Your task to perform on an android device: Empty the shopping cart on walmart.com. Search for "acer predator" on walmart.com, select the first entry, add it to the cart, then select checkout. Image 0: 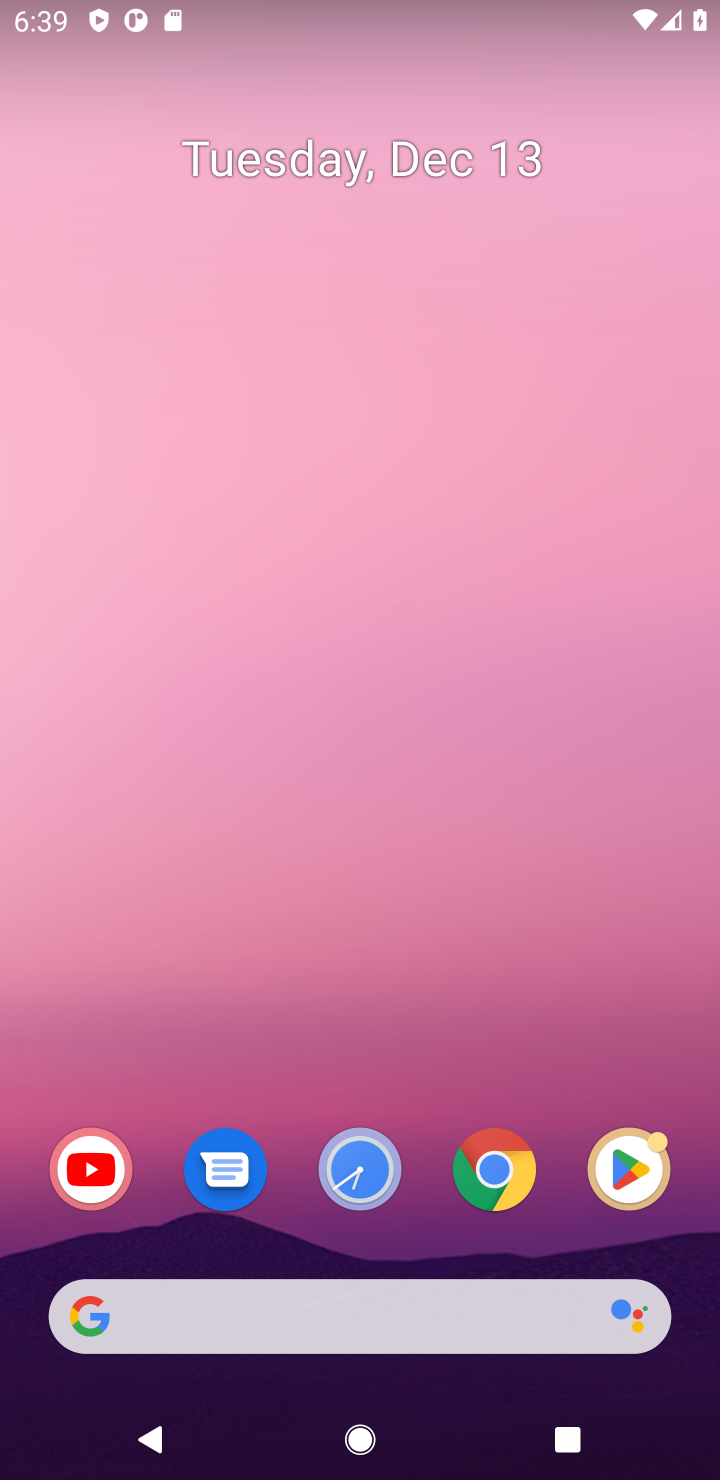
Step 0: click (381, 1292)
Your task to perform on an android device: Empty the shopping cart on walmart.com. Search for "acer predator" on walmart.com, select the first entry, add it to the cart, then select checkout. Image 1: 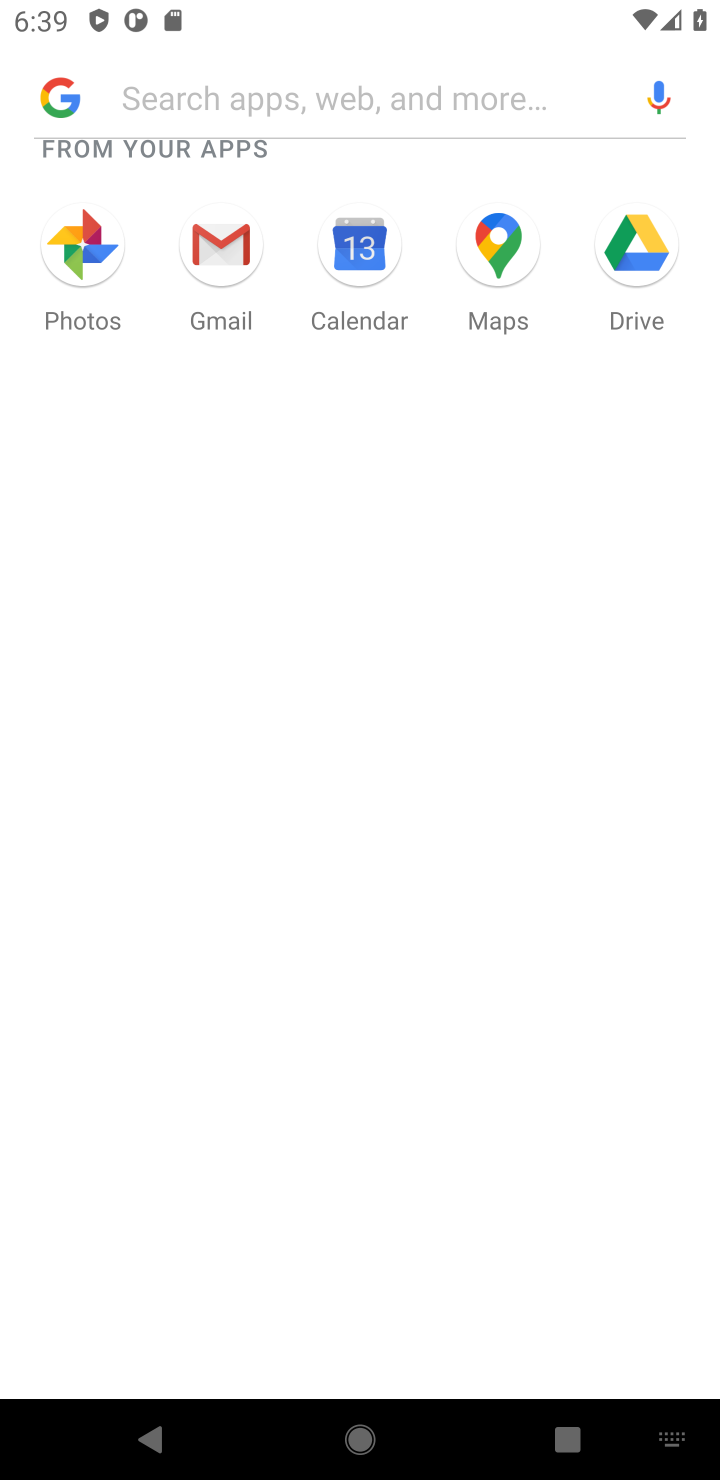
Step 1: type "walmart"
Your task to perform on an android device: Empty the shopping cart on walmart.com. Search for "acer predator" on walmart.com, select the first entry, add it to the cart, then select checkout. Image 2: 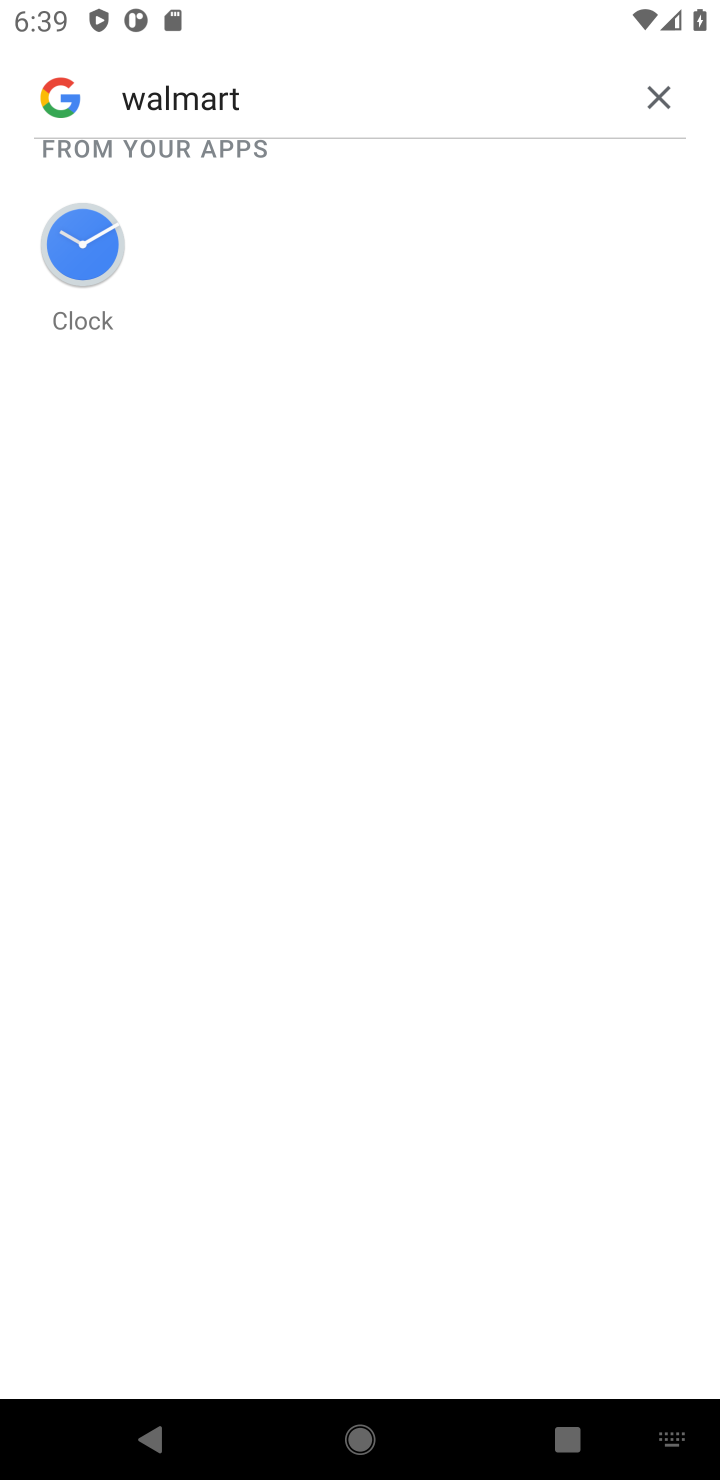
Step 2: press home button
Your task to perform on an android device: Empty the shopping cart on walmart.com. Search for "acer predator" on walmart.com, select the first entry, add it to the cart, then select checkout. Image 3: 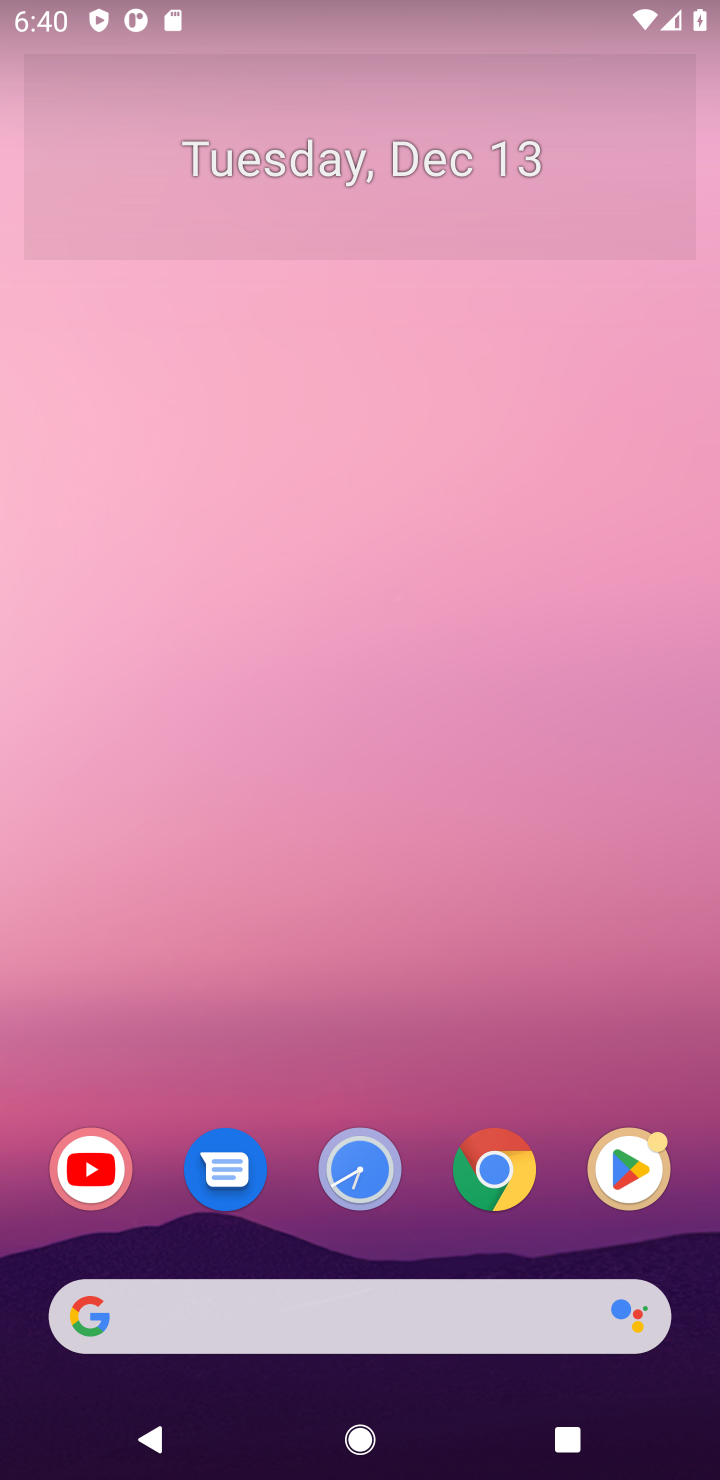
Step 3: click (481, 1206)
Your task to perform on an android device: Empty the shopping cart on walmart.com. Search for "acer predator" on walmart.com, select the first entry, add it to the cart, then select checkout. Image 4: 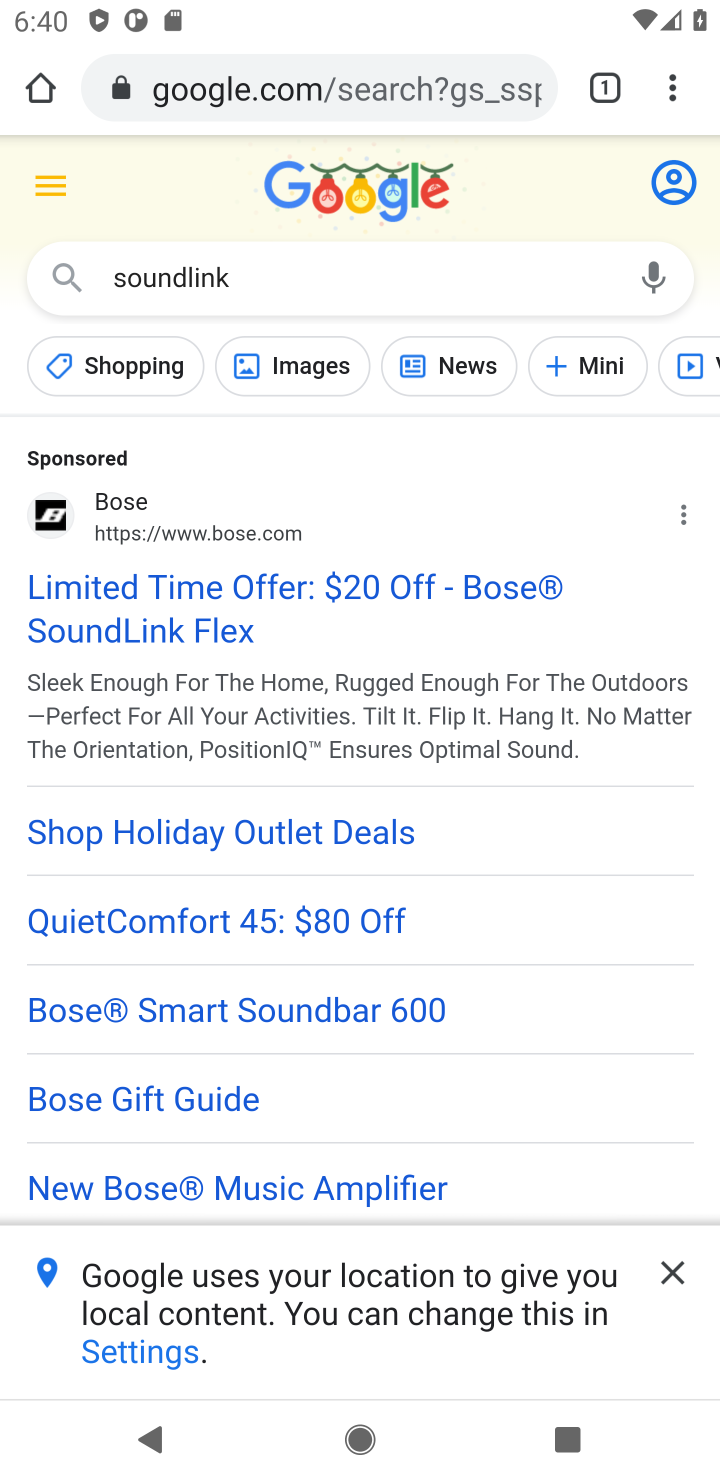
Step 4: click (302, 249)
Your task to perform on an android device: Empty the shopping cart on walmart.com. Search for "acer predator" on walmart.com, select the first entry, add it to the cart, then select checkout. Image 5: 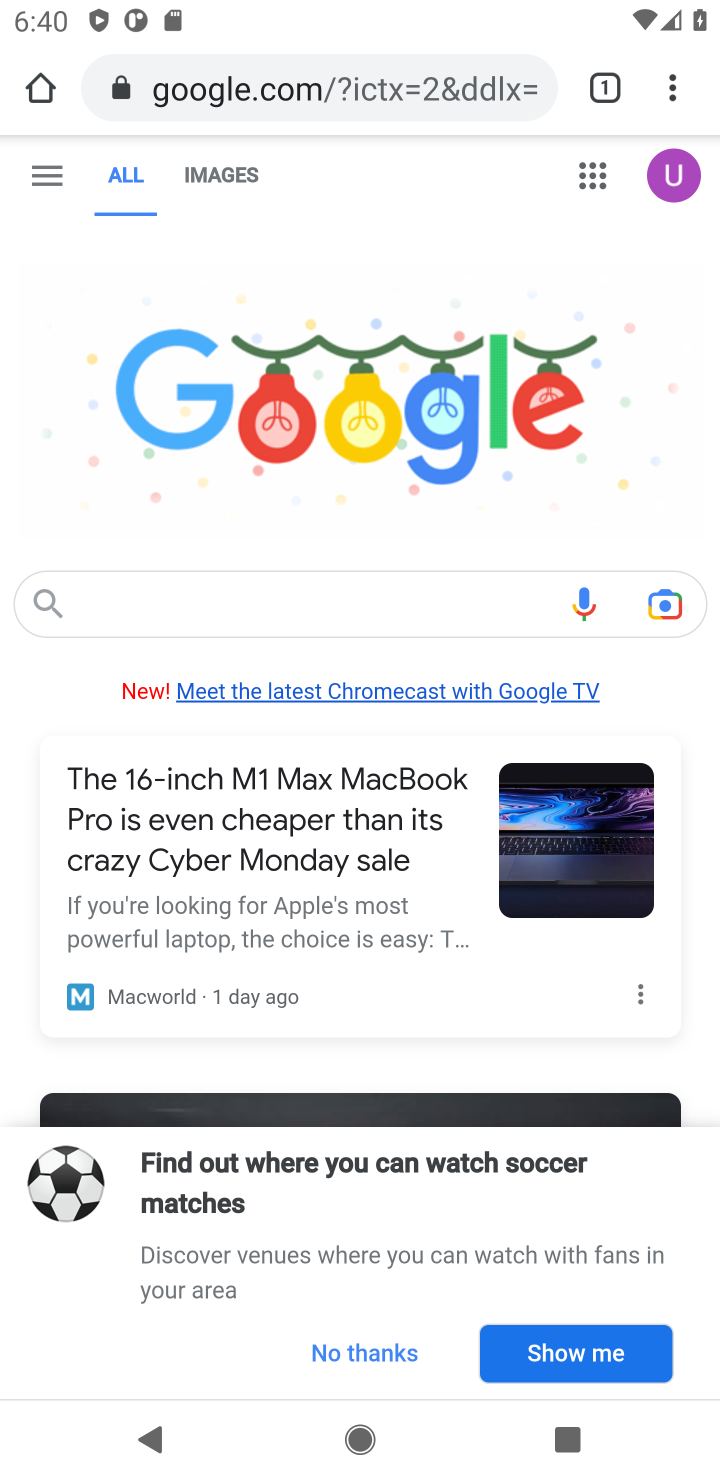
Step 5: click (237, 607)
Your task to perform on an android device: Empty the shopping cart on walmart.com. Search for "acer predator" on walmart.com, select the first entry, add it to the cart, then select checkout. Image 6: 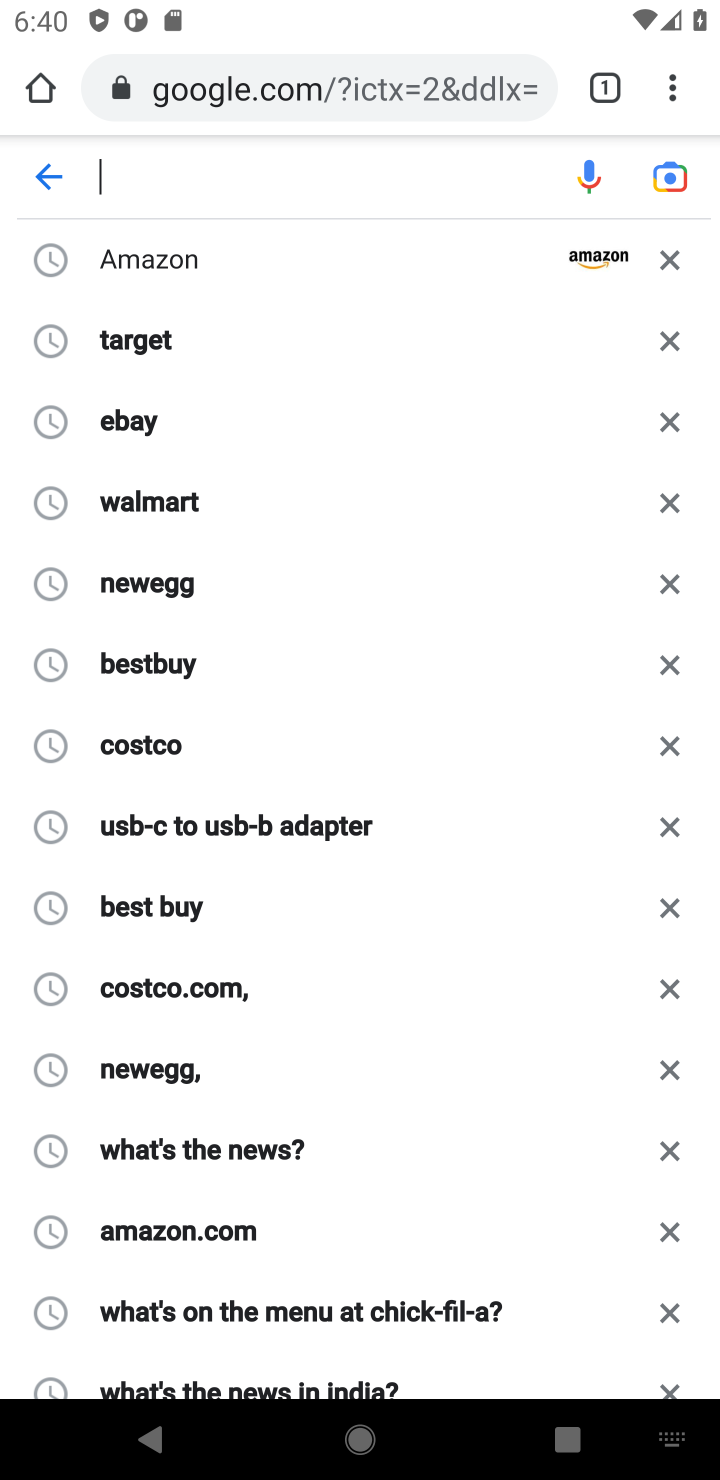
Step 6: click (157, 506)
Your task to perform on an android device: Empty the shopping cart on walmart.com. Search for "acer predator" on walmart.com, select the first entry, add it to the cart, then select checkout. Image 7: 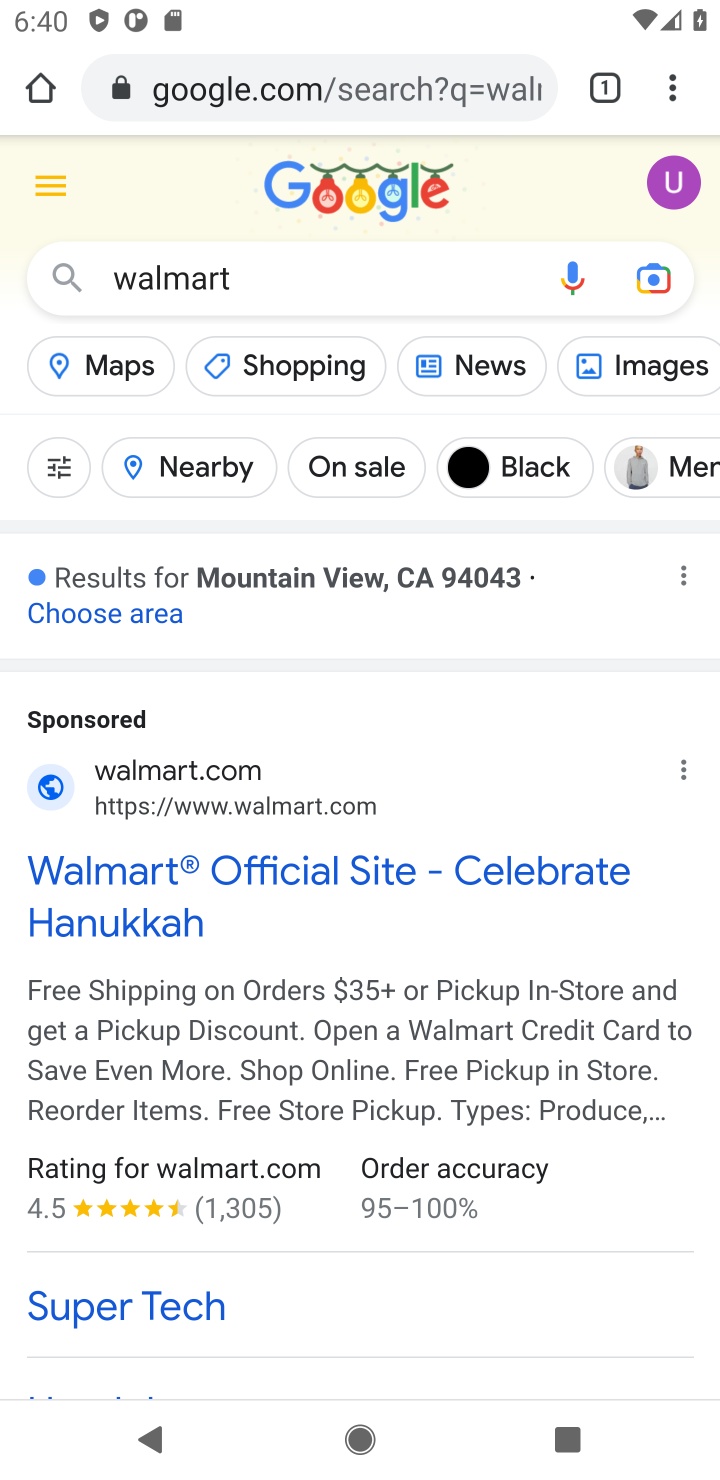
Step 7: click (167, 868)
Your task to perform on an android device: Empty the shopping cart on walmart.com. Search for "acer predator" on walmart.com, select the first entry, add it to the cart, then select checkout. Image 8: 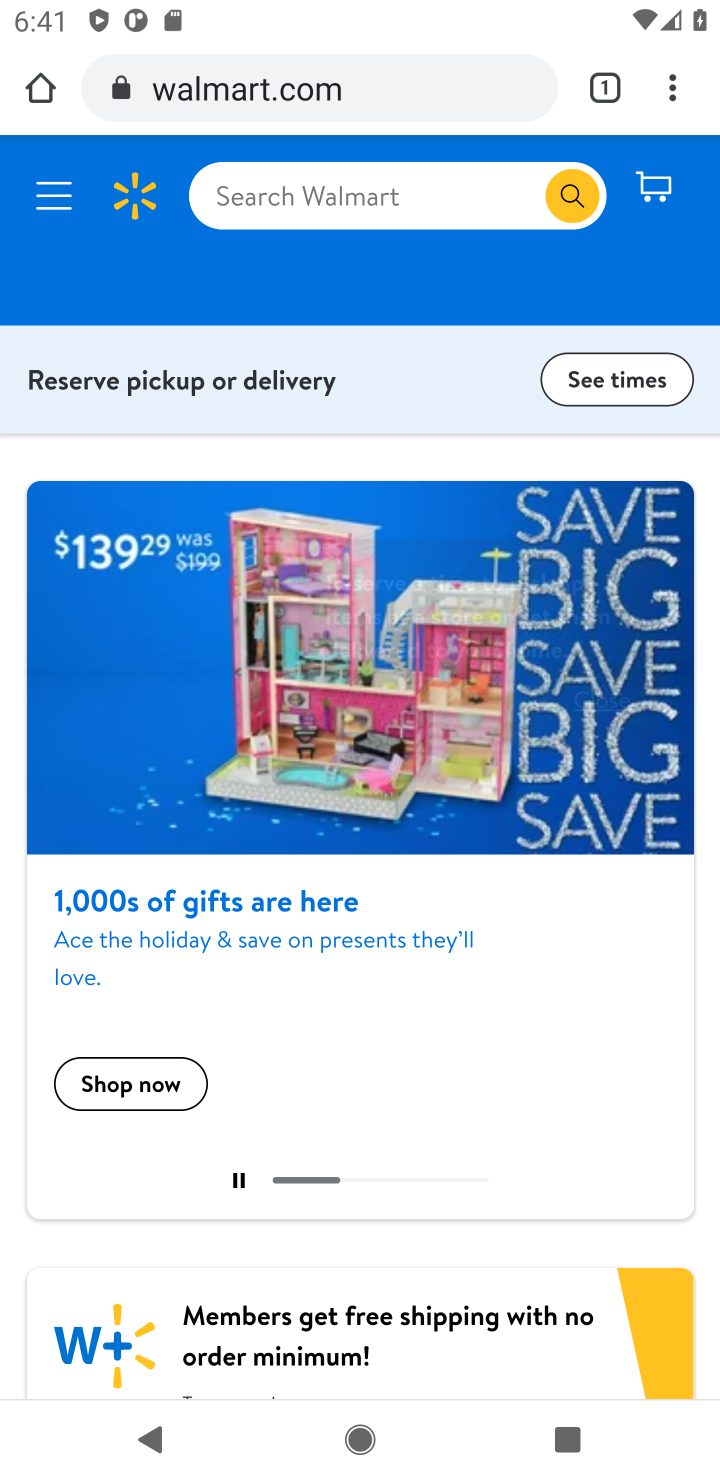
Step 8: click (334, 212)
Your task to perform on an android device: Empty the shopping cart on walmart.com. Search for "acer predator" on walmart.com, select the first entry, add it to the cart, then select checkout. Image 9: 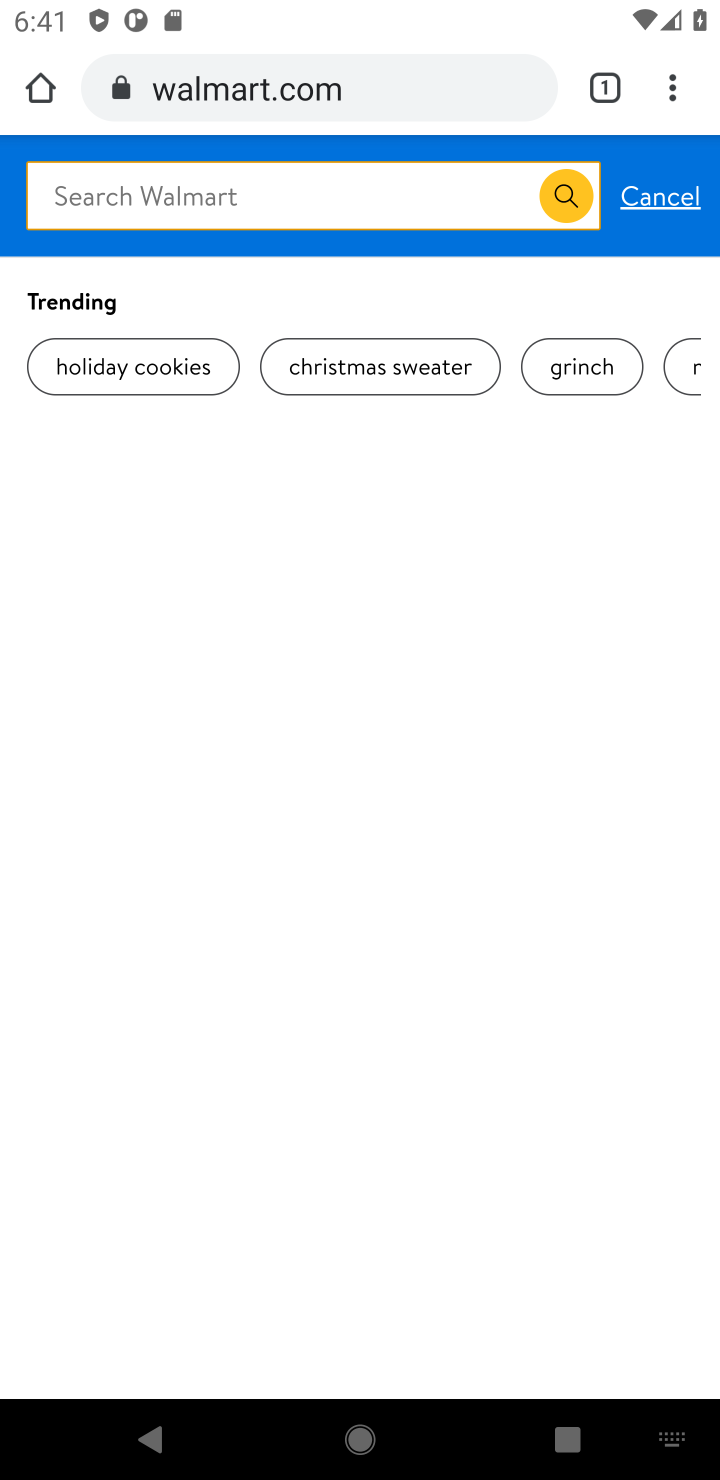
Step 9: type "acer predator"
Your task to perform on an android device: Empty the shopping cart on walmart.com. Search for "acer predator" on walmart.com, select the first entry, add it to the cart, then select checkout. Image 10: 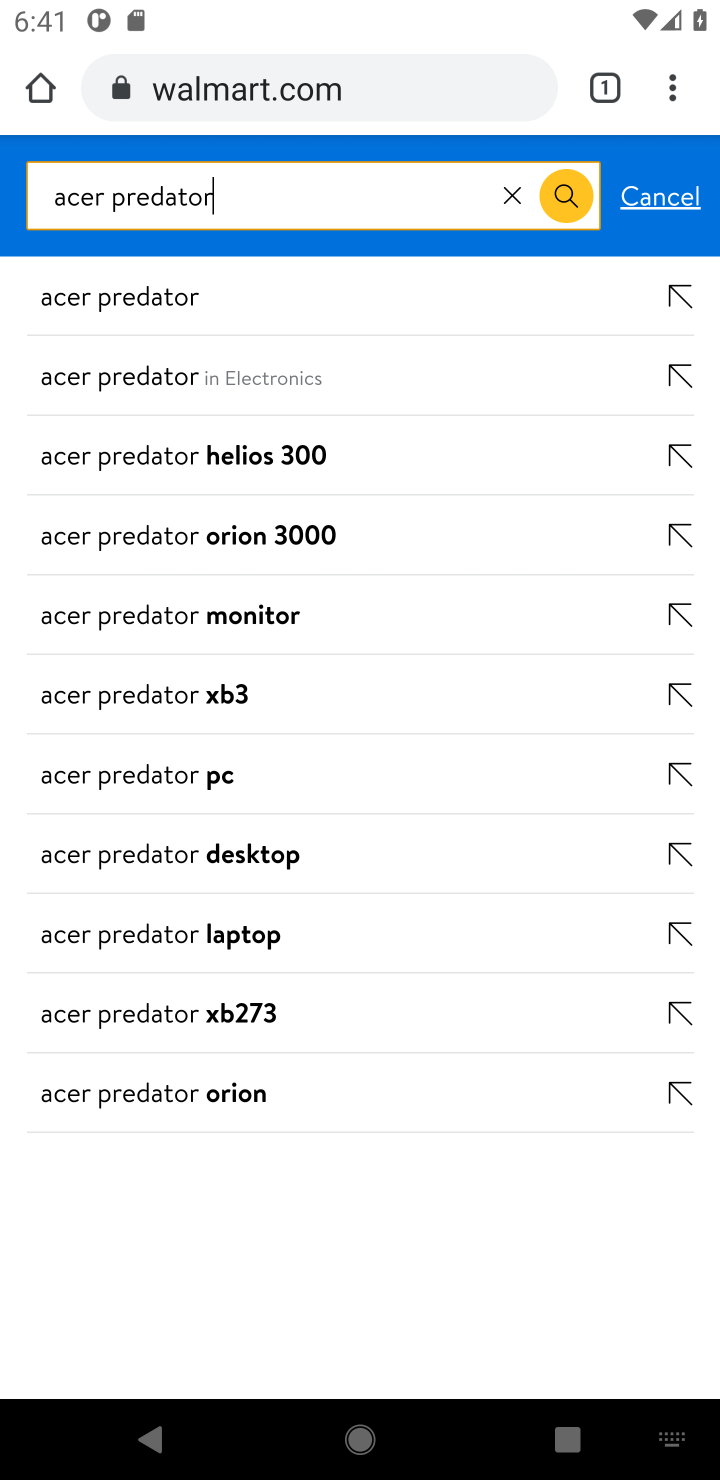
Step 10: click (256, 308)
Your task to perform on an android device: Empty the shopping cart on walmart.com. Search for "acer predator" on walmart.com, select the first entry, add it to the cart, then select checkout. Image 11: 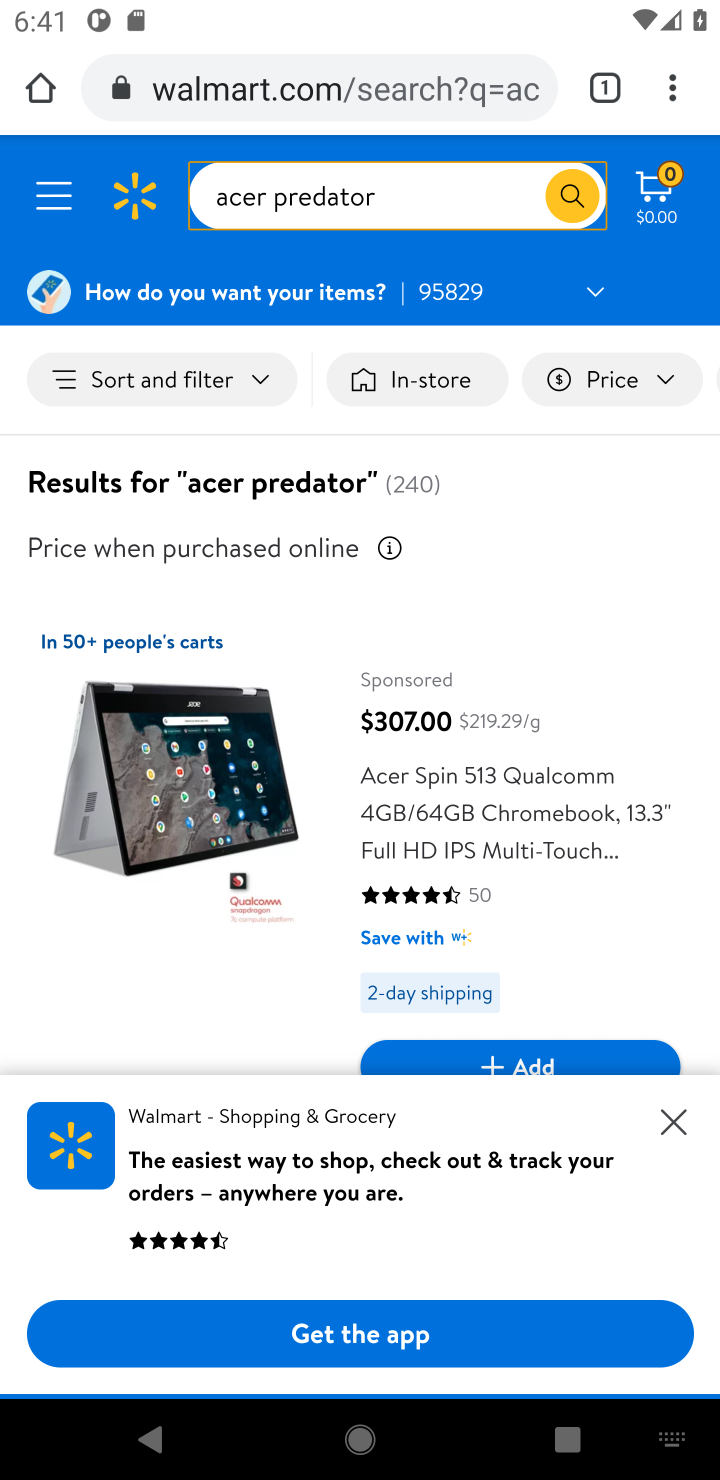
Step 11: click (626, 1118)
Your task to perform on an android device: Empty the shopping cart on walmart.com. Search for "acer predator" on walmart.com, select the first entry, add it to the cart, then select checkout. Image 12: 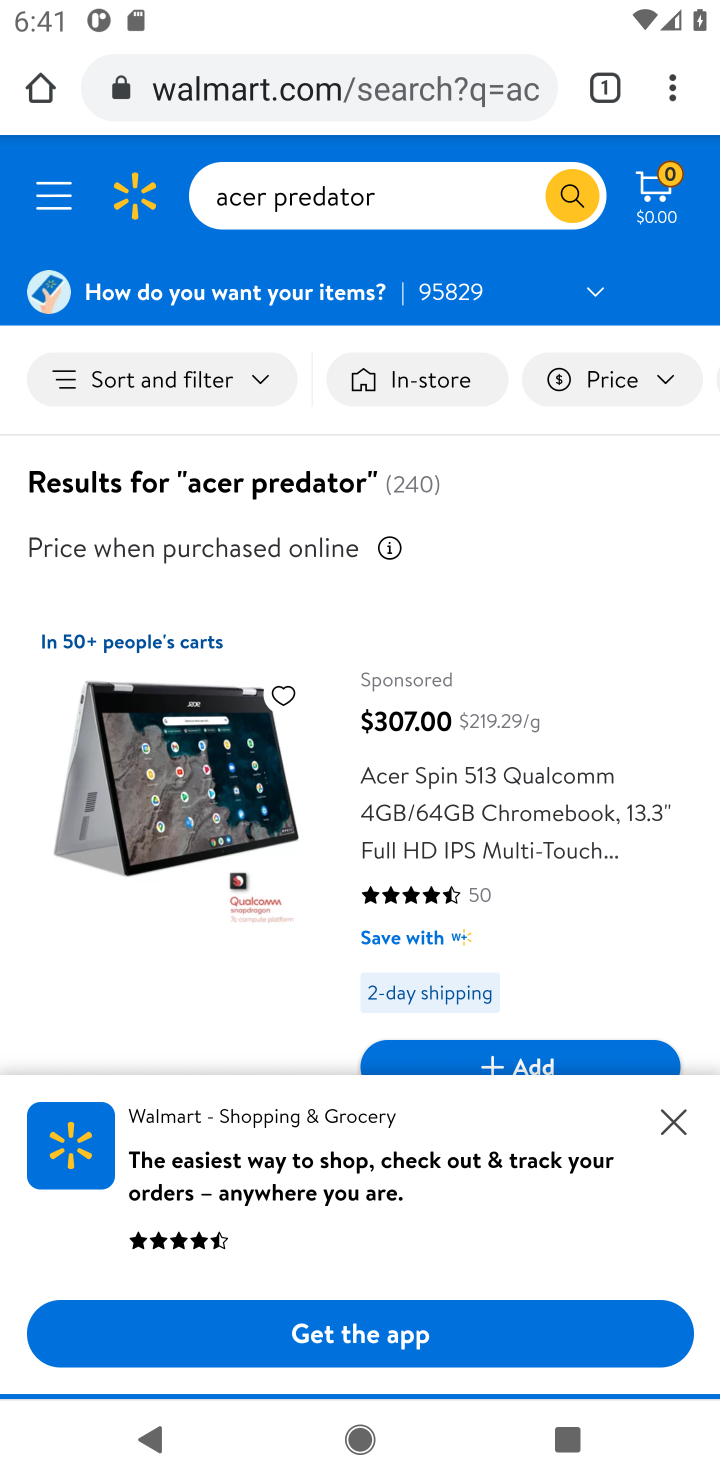
Step 12: click (668, 1134)
Your task to perform on an android device: Empty the shopping cart on walmart.com. Search for "acer predator" on walmart.com, select the first entry, add it to the cart, then select checkout. Image 13: 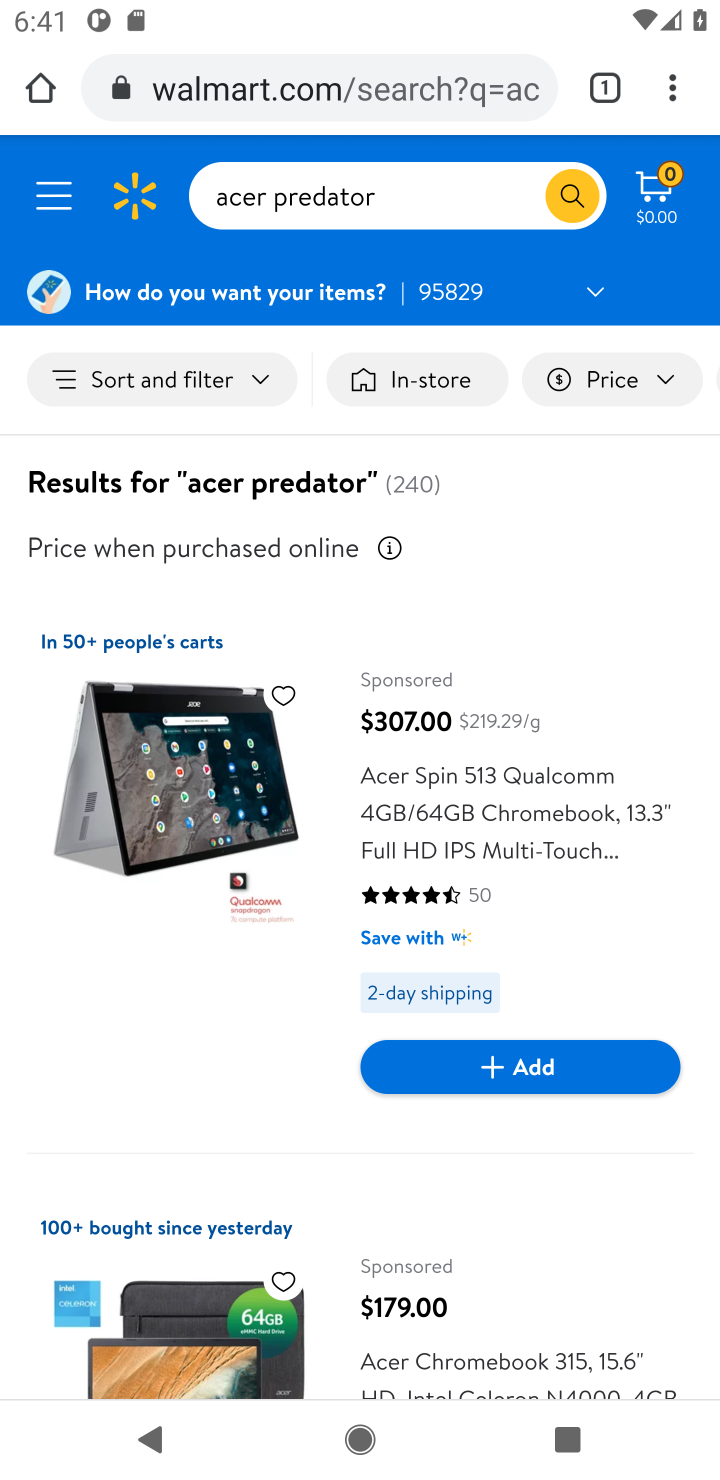
Step 13: click (541, 1056)
Your task to perform on an android device: Empty the shopping cart on walmart.com. Search for "acer predator" on walmart.com, select the first entry, add it to the cart, then select checkout. Image 14: 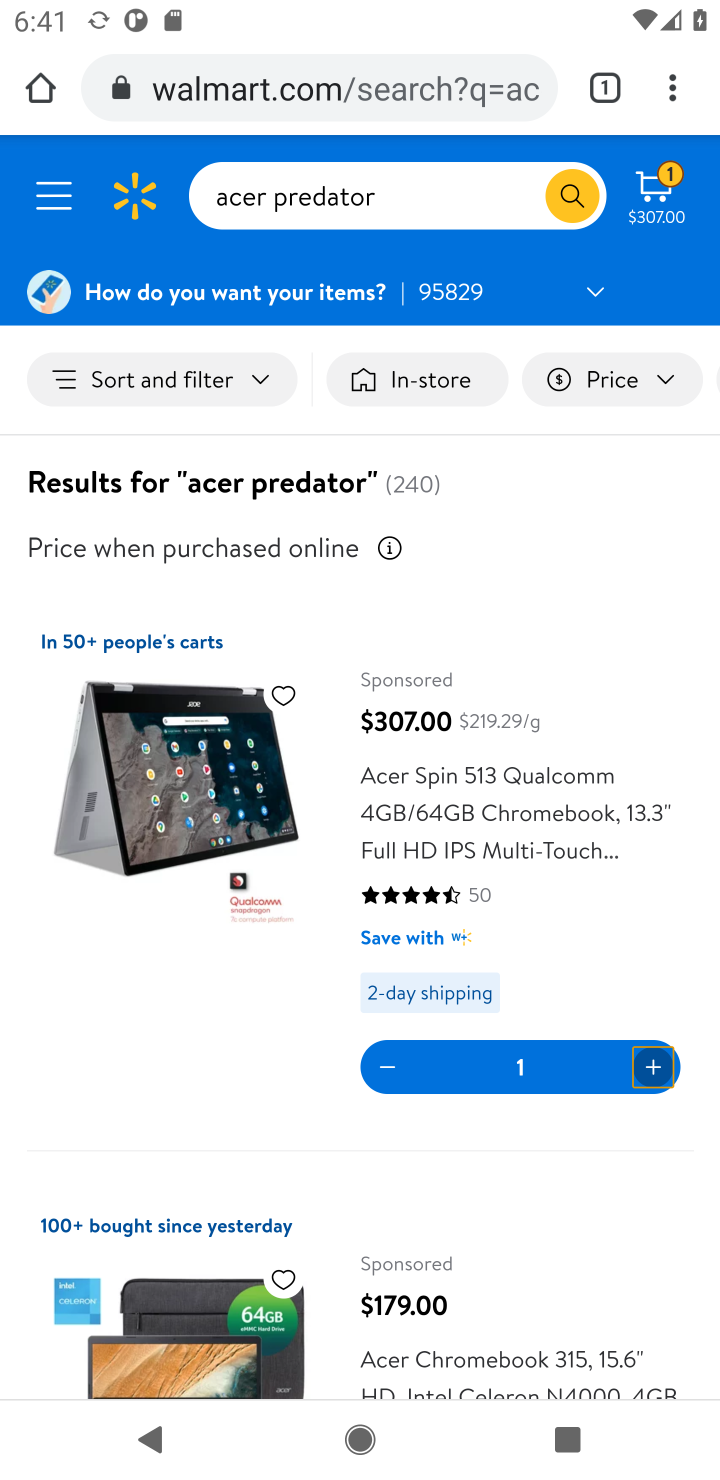
Step 14: task complete